Your task to perform on an android device: Open the phone app and click the voicemail tab. Image 0: 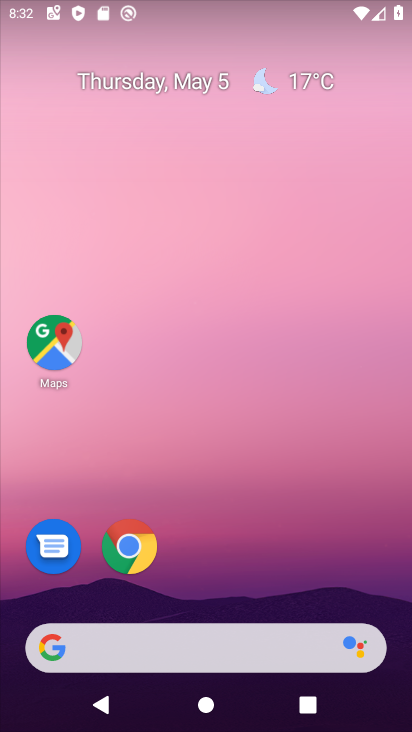
Step 0: drag from (171, 641) to (299, 115)
Your task to perform on an android device: Open the phone app and click the voicemail tab. Image 1: 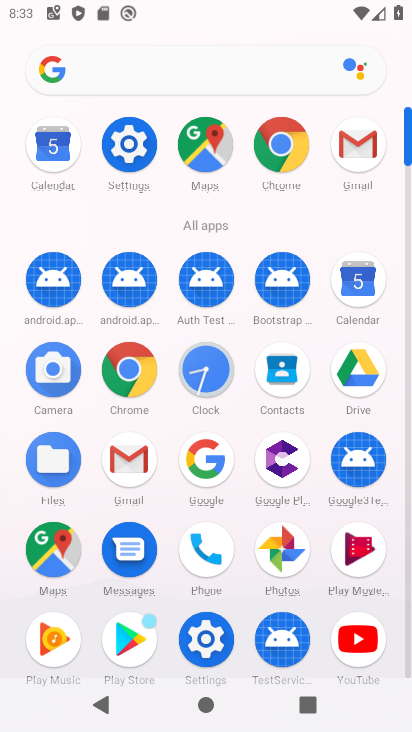
Step 1: click (202, 549)
Your task to perform on an android device: Open the phone app and click the voicemail tab. Image 2: 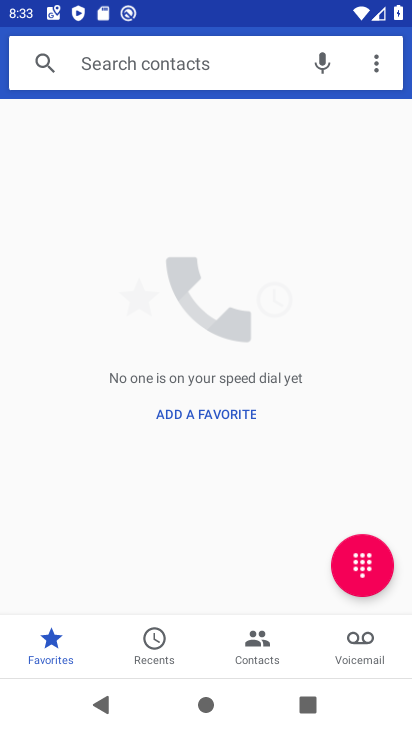
Step 2: click (356, 643)
Your task to perform on an android device: Open the phone app and click the voicemail tab. Image 3: 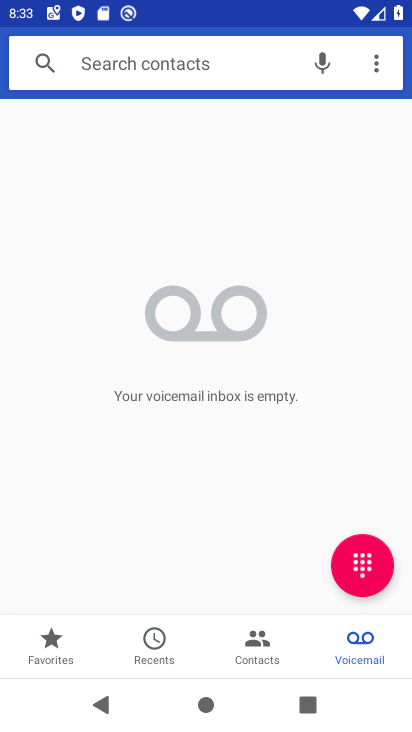
Step 3: task complete